Your task to perform on an android device: Is it going to rain this weekend? Image 0: 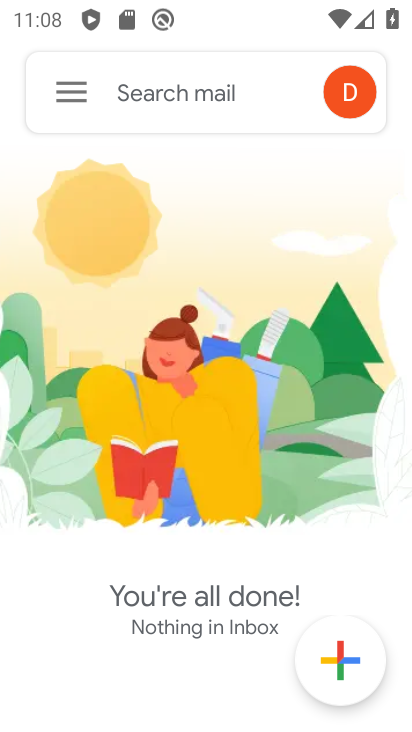
Step 0: press home button
Your task to perform on an android device: Is it going to rain this weekend? Image 1: 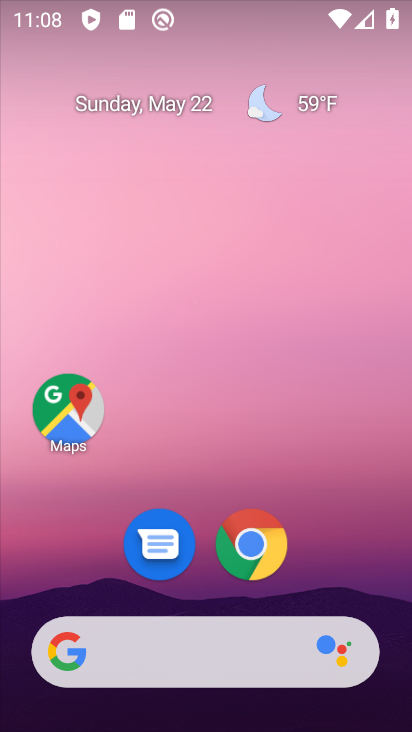
Step 1: drag from (351, 563) to (290, 100)
Your task to perform on an android device: Is it going to rain this weekend? Image 2: 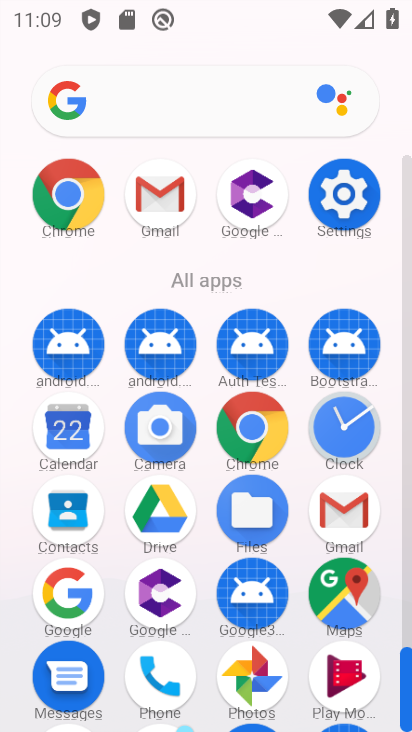
Step 2: click (63, 101)
Your task to perform on an android device: Is it going to rain this weekend? Image 3: 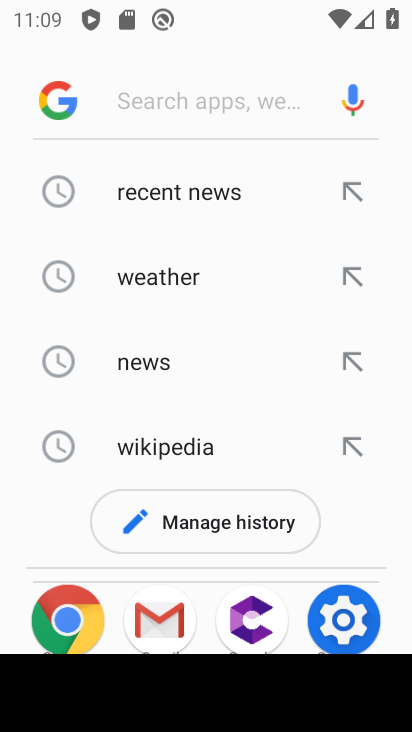
Step 3: click (63, 101)
Your task to perform on an android device: Is it going to rain this weekend? Image 4: 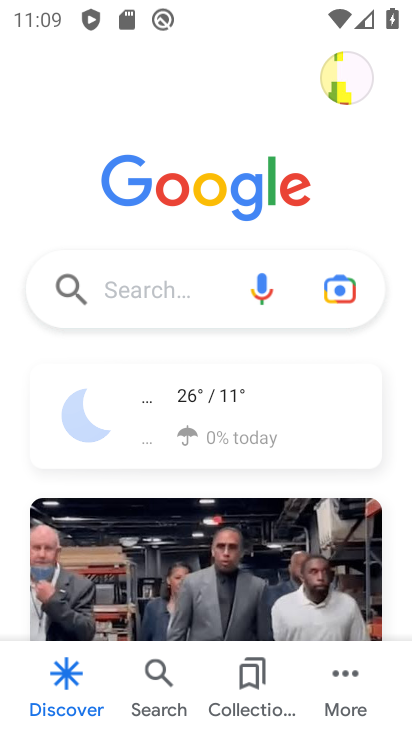
Step 4: click (204, 423)
Your task to perform on an android device: Is it going to rain this weekend? Image 5: 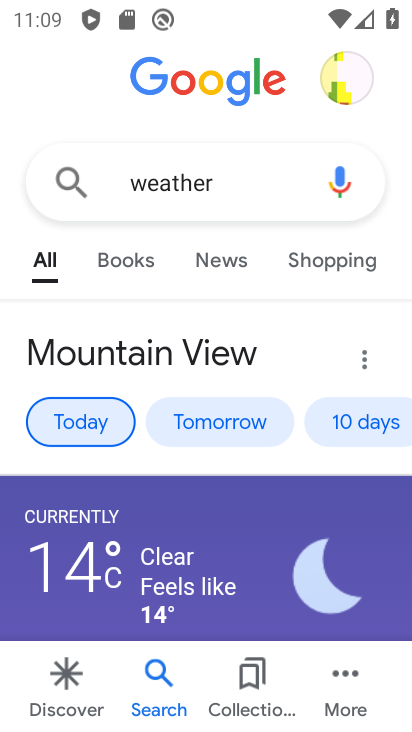
Step 5: task complete